Your task to perform on an android device: View the shopping cart on target. Image 0: 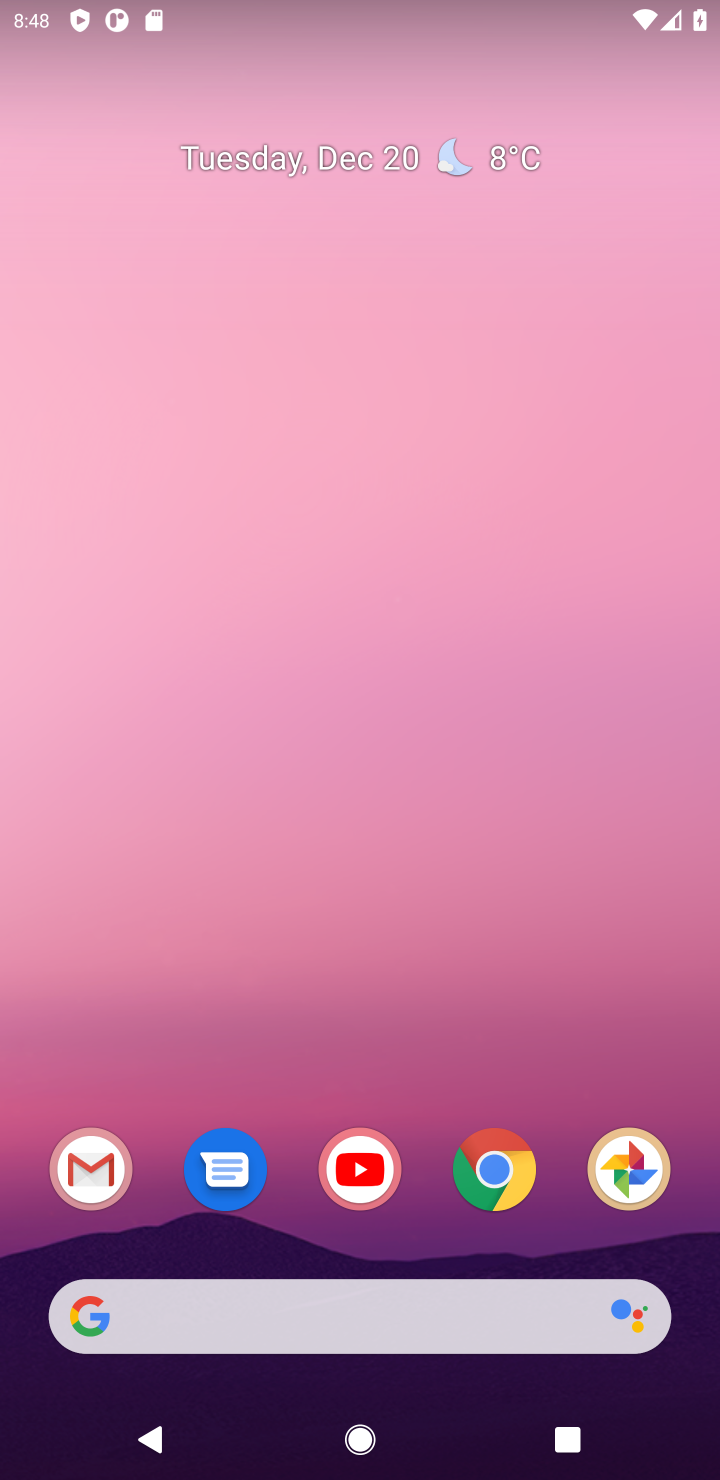
Step 0: click (499, 1200)
Your task to perform on an android device: View the shopping cart on target. Image 1: 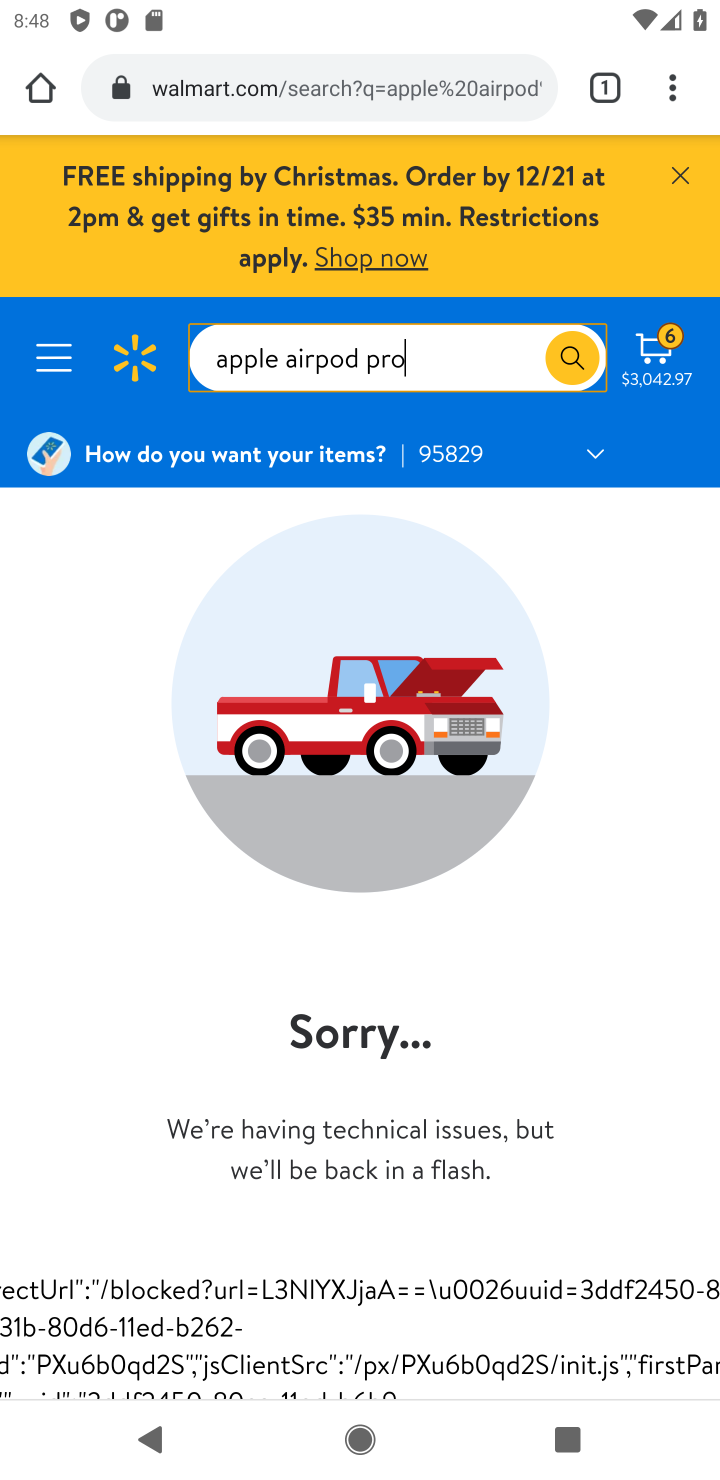
Step 1: click (333, 82)
Your task to perform on an android device: View the shopping cart on target. Image 2: 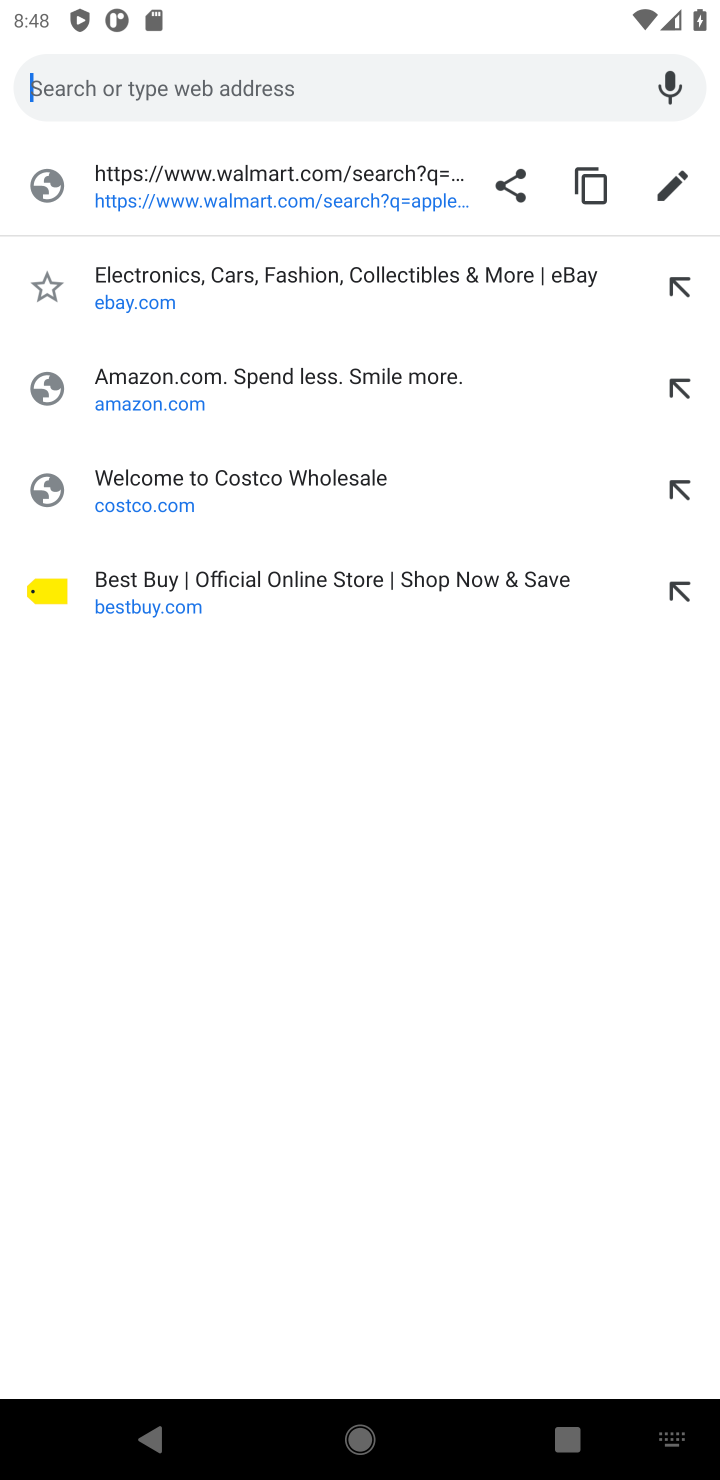
Step 2: type "target"
Your task to perform on an android device: View the shopping cart on target. Image 3: 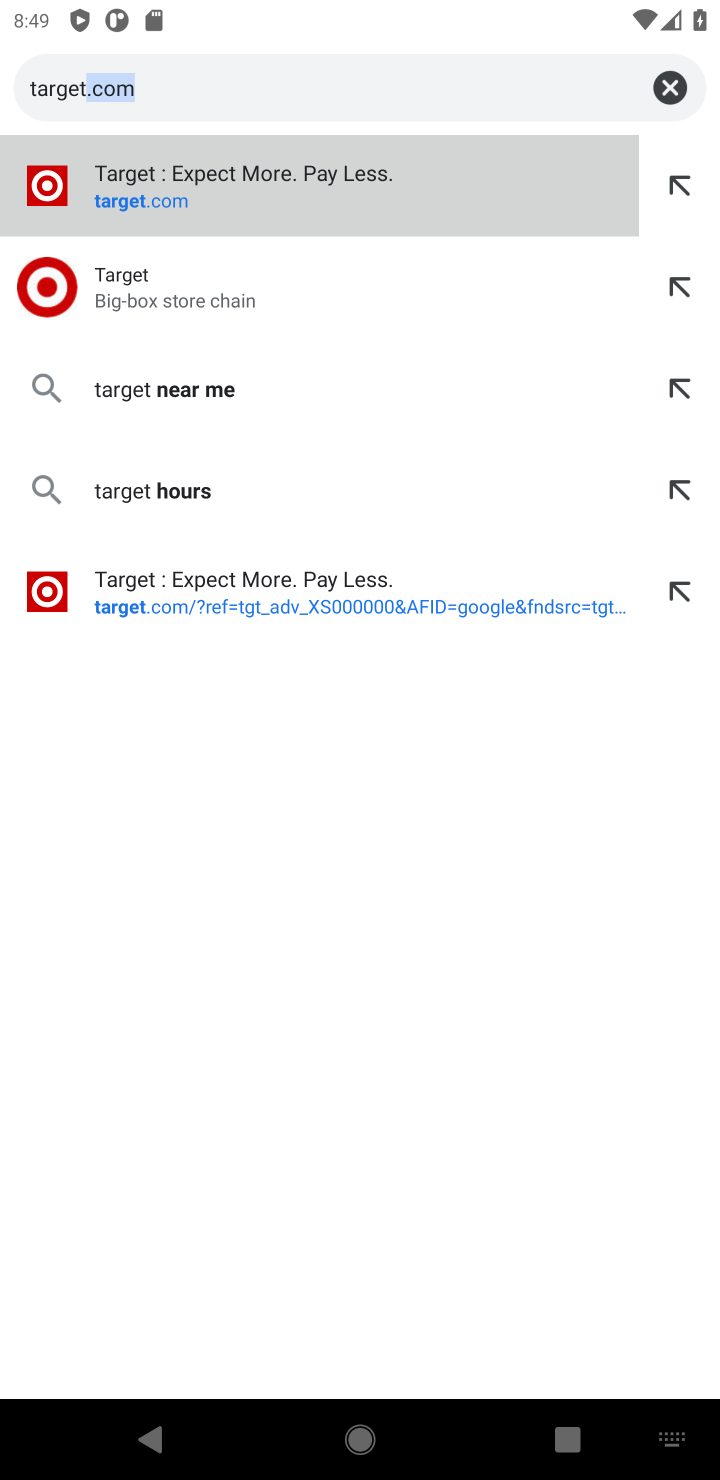
Step 3: click (204, 212)
Your task to perform on an android device: View the shopping cart on target. Image 4: 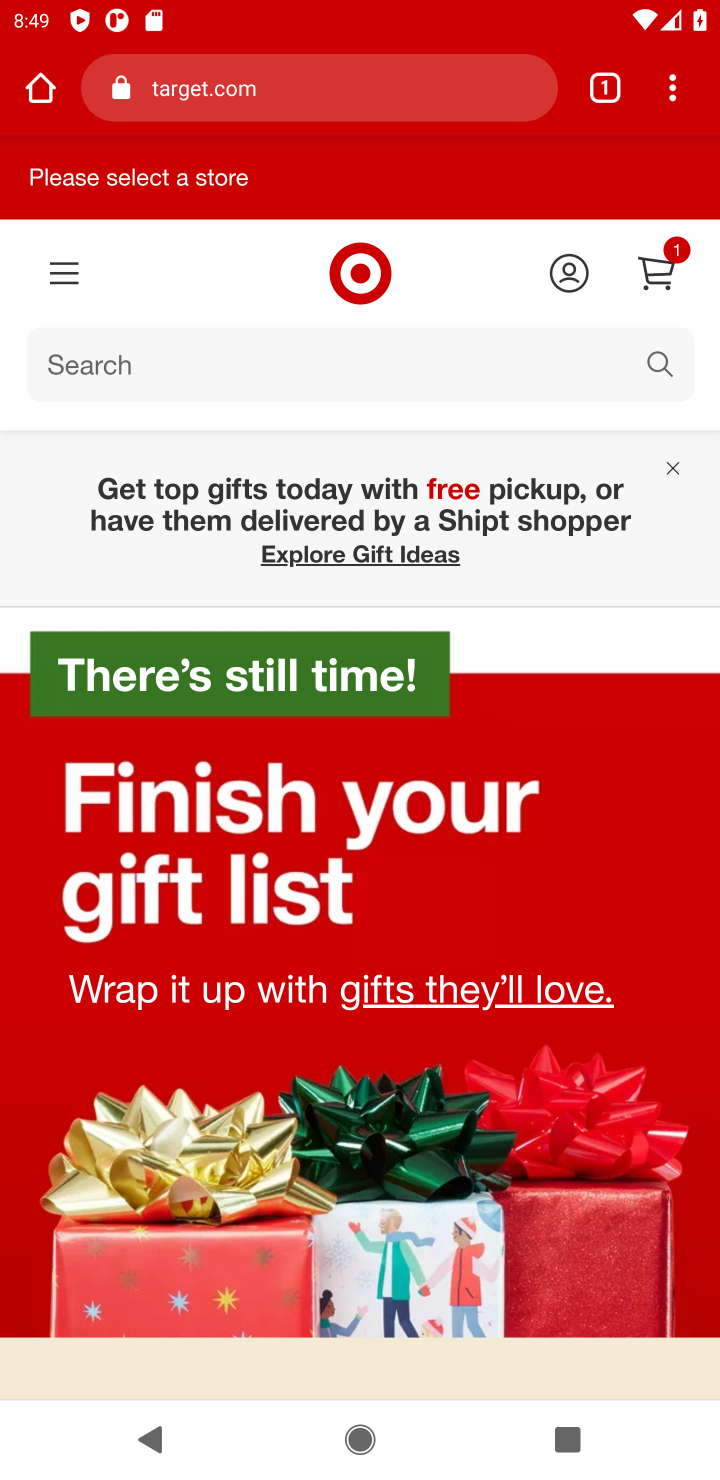
Step 4: click (275, 374)
Your task to perform on an android device: View the shopping cart on target. Image 5: 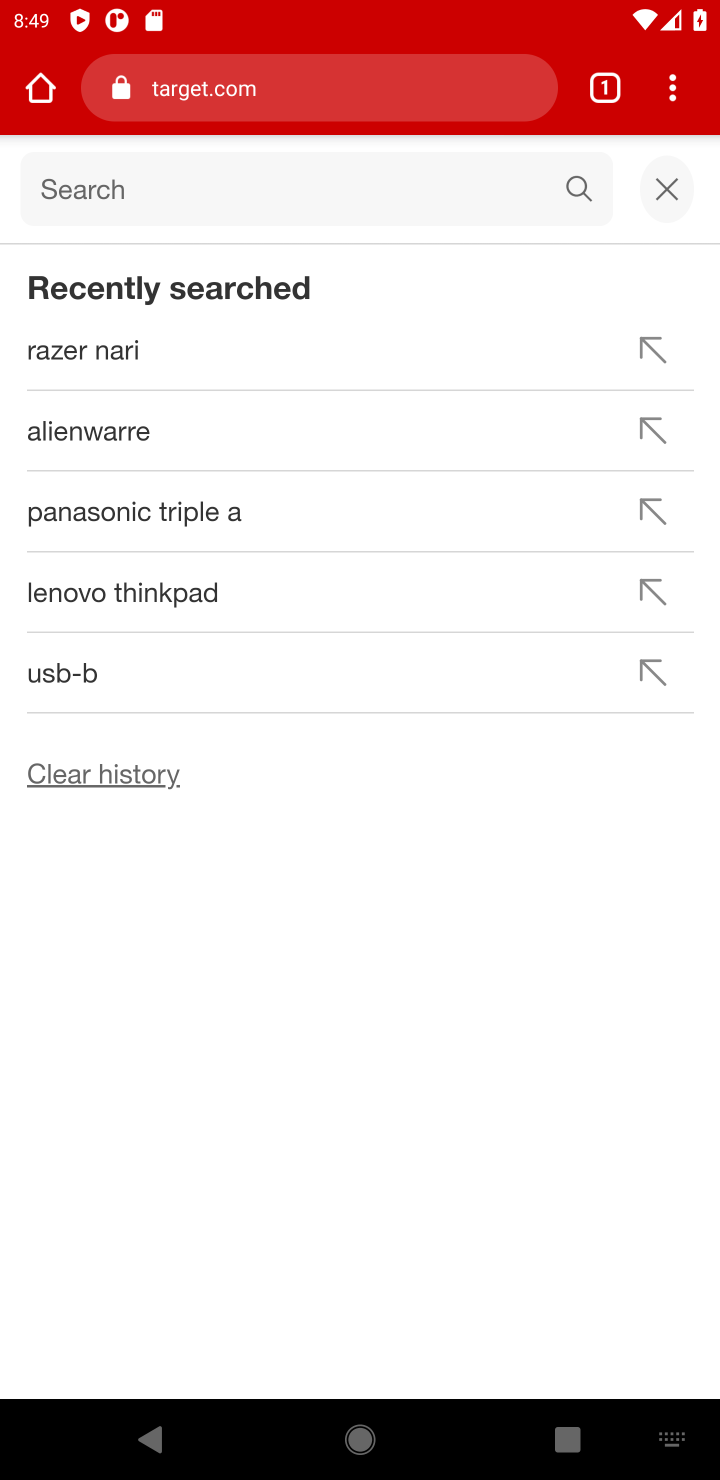
Step 5: click (669, 202)
Your task to perform on an android device: View the shopping cart on target. Image 6: 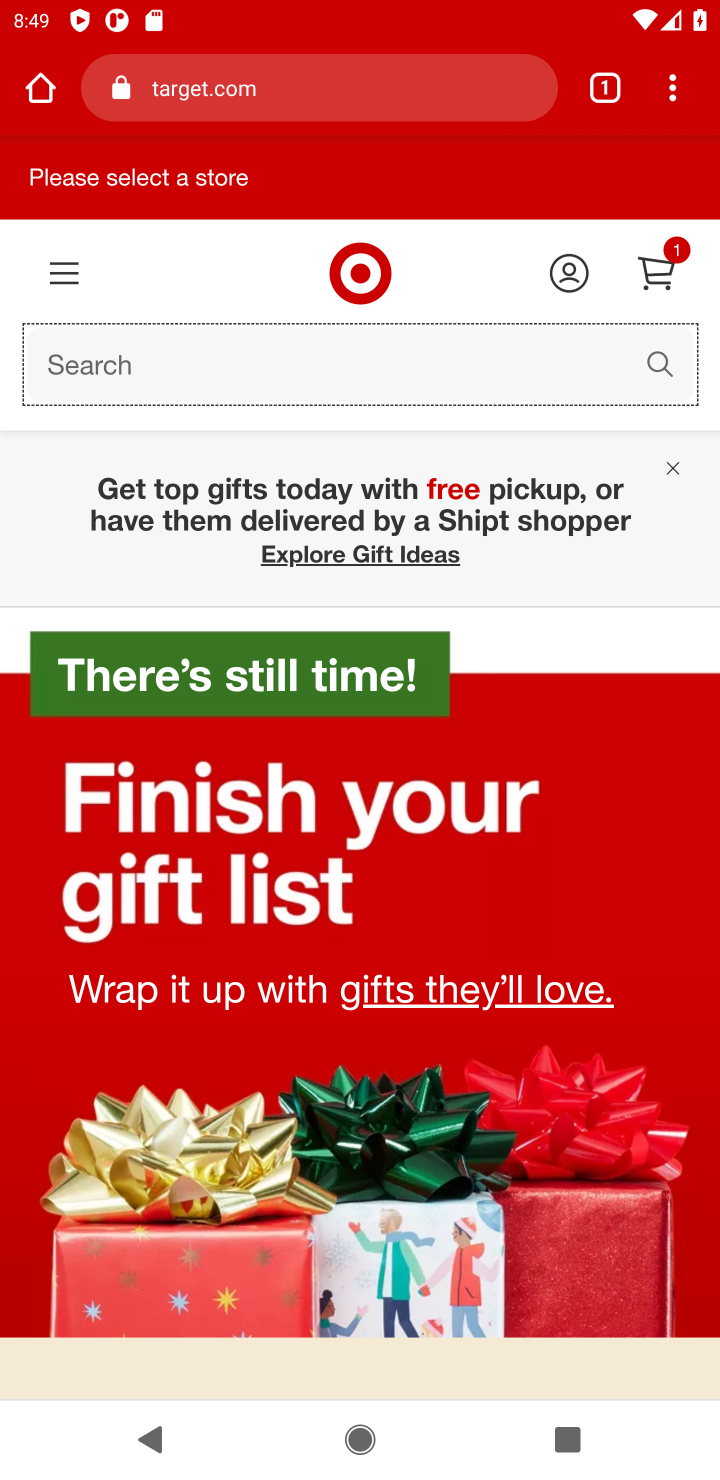
Step 6: click (651, 300)
Your task to perform on an android device: View the shopping cart on target. Image 7: 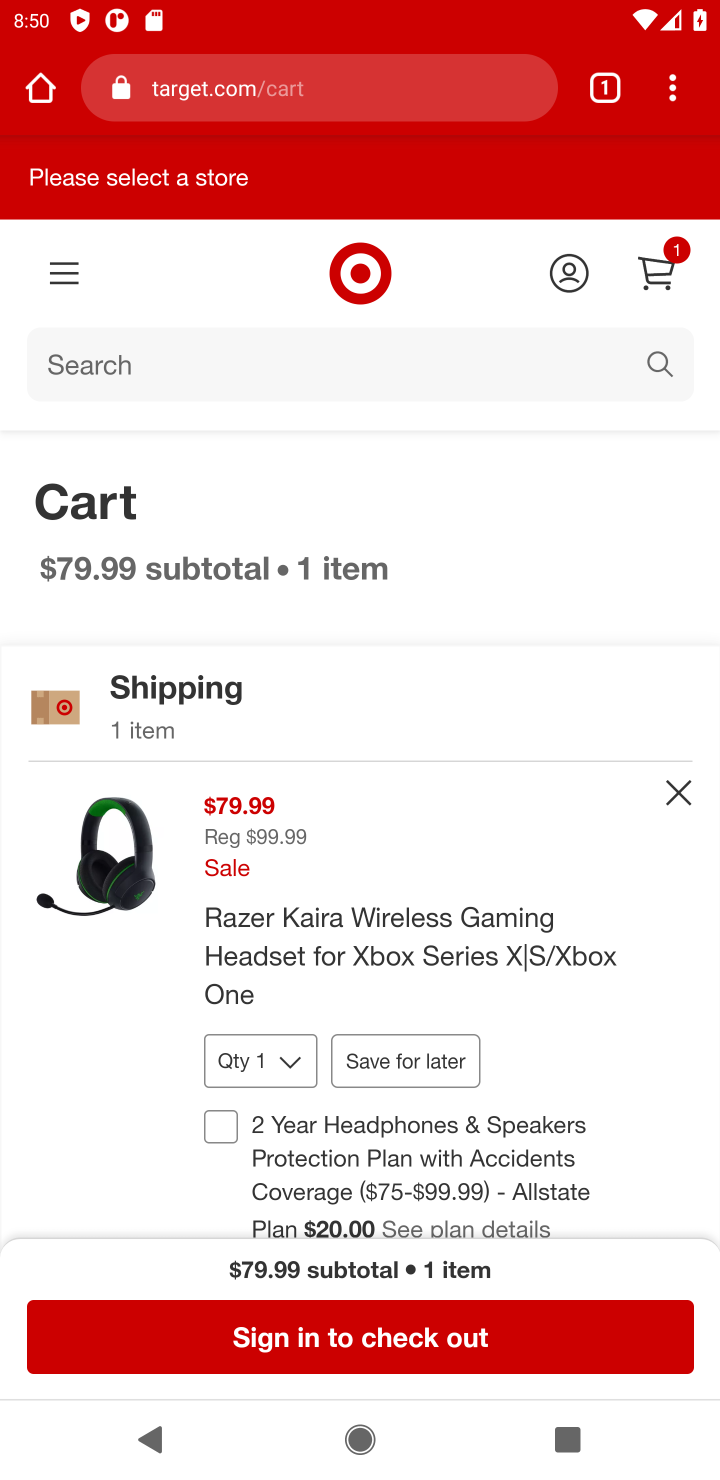
Step 7: task complete